Your task to perform on an android device: show emergency info Image 0: 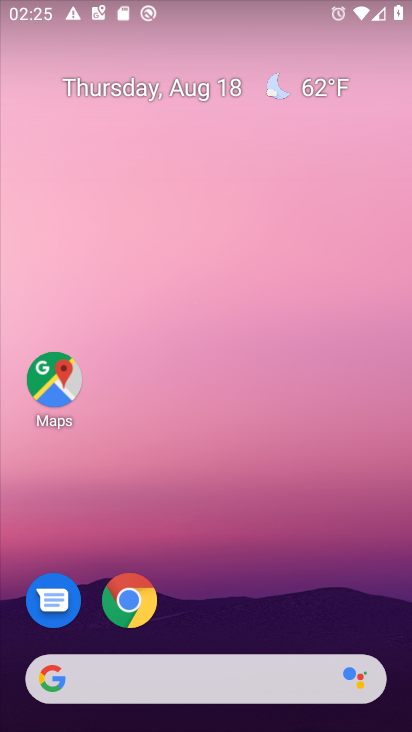
Step 0: press home button
Your task to perform on an android device: show emergency info Image 1: 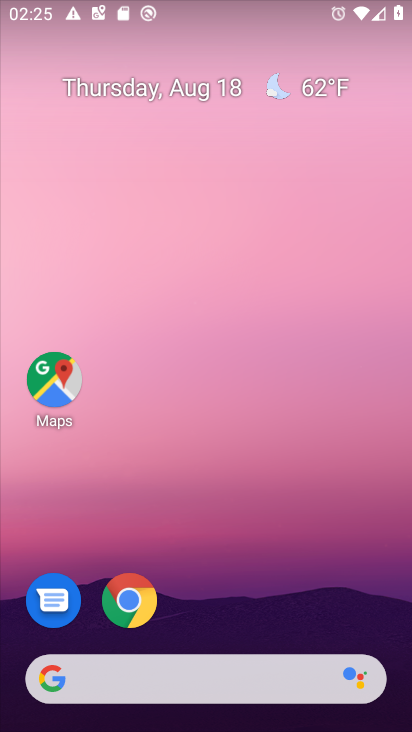
Step 1: drag from (243, 582) to (255, 140)
Your task to perform on an android device: show emergency info Image 2: 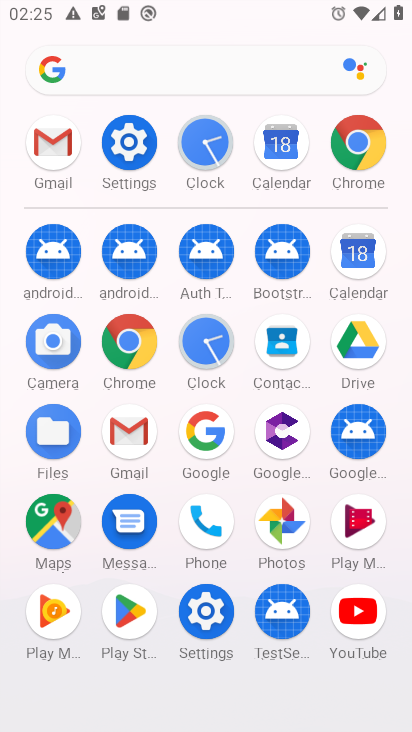
Step 2: click (120, 136)
Your task to perform on an android device: show emergency info Image 3: 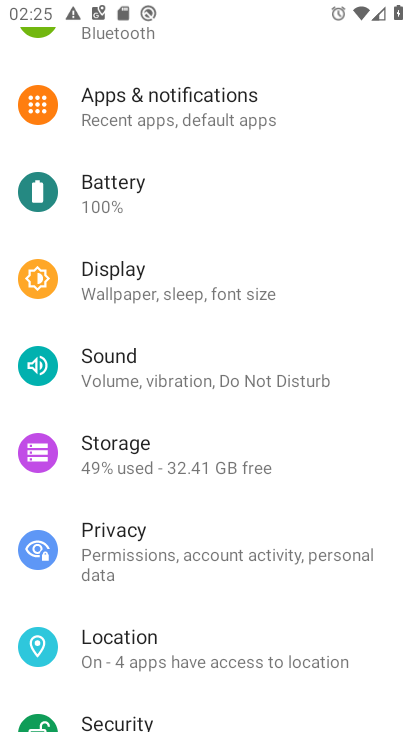
Step 3: drag from (115, 609) to (143, 174)
Your task to perform on an android device: show emergency info Image 4: 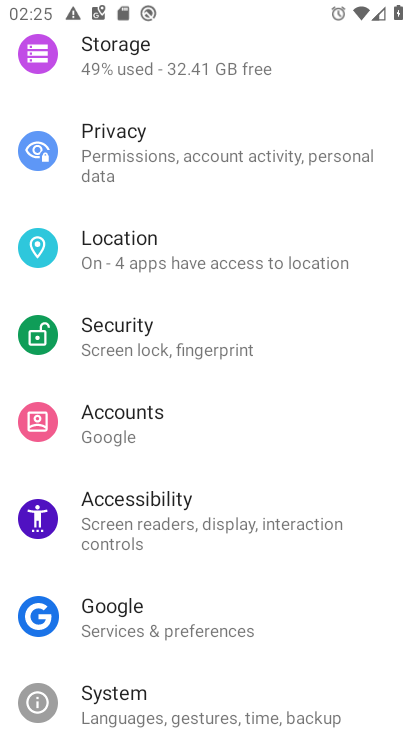
Step 4: drag from (118, 665) to (157, 305)
Your task to perform on an android device: show emergency info Image 5: 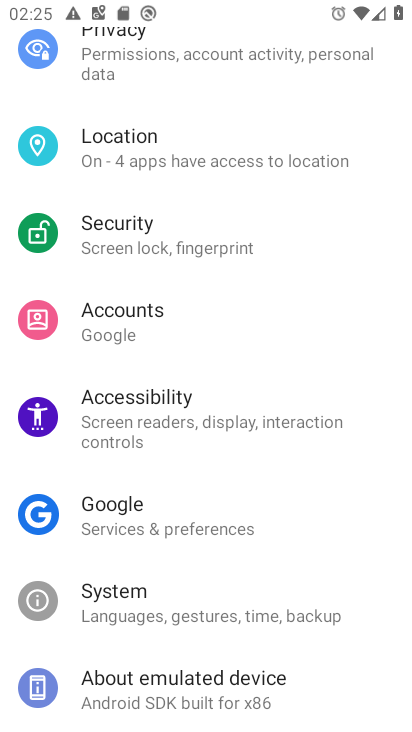
Step 5: click (109, 679)
Your task to perform on an android device: show emergency info Image 6: 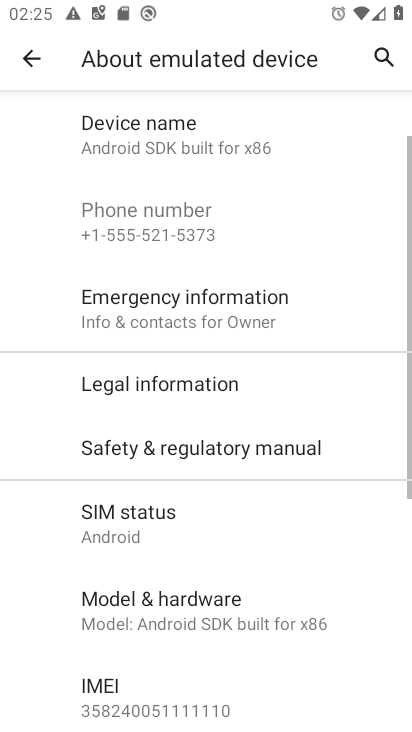
Step 6: click (169, 301)
Your task to perform on an android device: show emergency info Image 7: 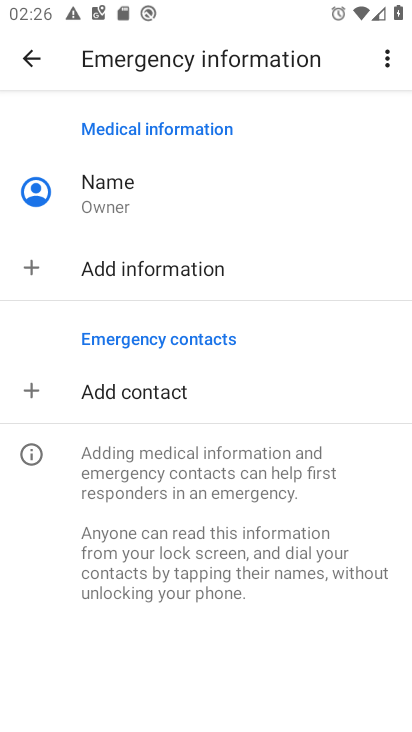
Step 7: task complete